Your task to perform on an android device: toggle pop-ups in chrome Image 0: 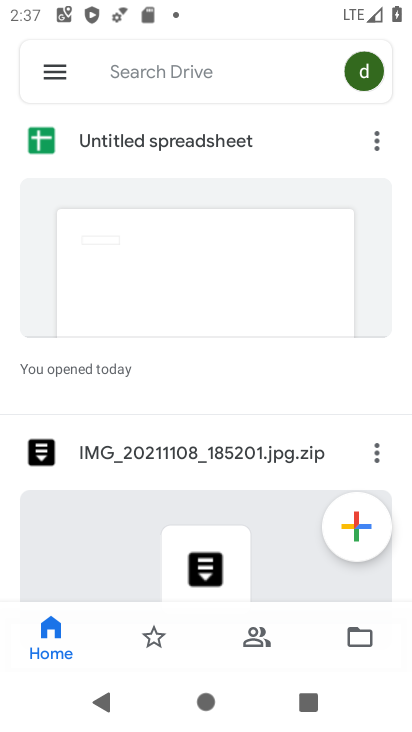
Step 0: press home button
Your task to perform on an android device: toggle pop-ups in chrome Image 1: 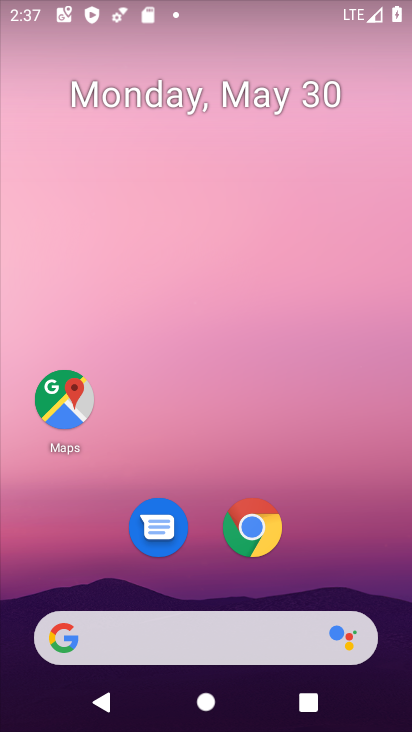
Step 1: drag from (321, 576) to (292, 130)
Your task to perform on an android device: toggle pop-ups in chrome Image 2: 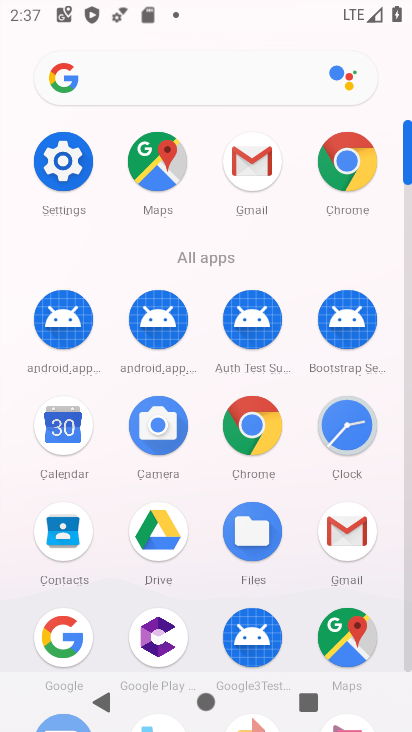
Step 2: click (243, 419)
Your task to perform on an android device: toggle pop-ups in chrome Image 3: 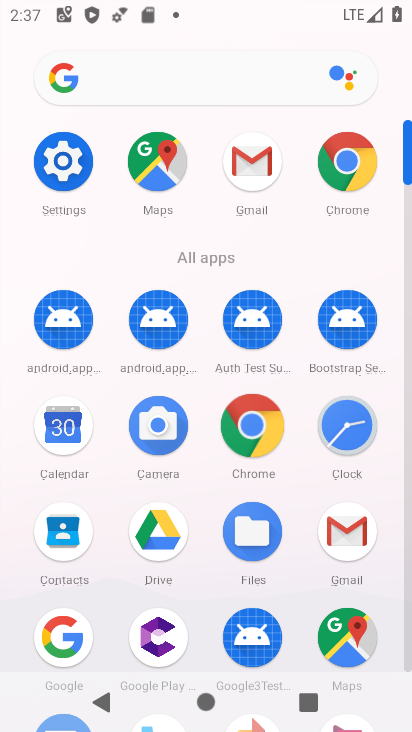
Step 3: click (243, 419)
Your task to perform on an android device: toggle pop-ups in chrome Image 4: 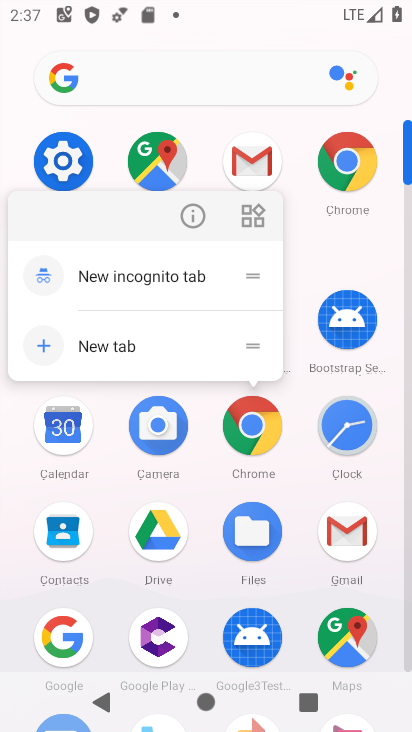
Step 4: click (196, 211)
Your task to perform on an android device: toggle pop-ups in chrome Image 5: 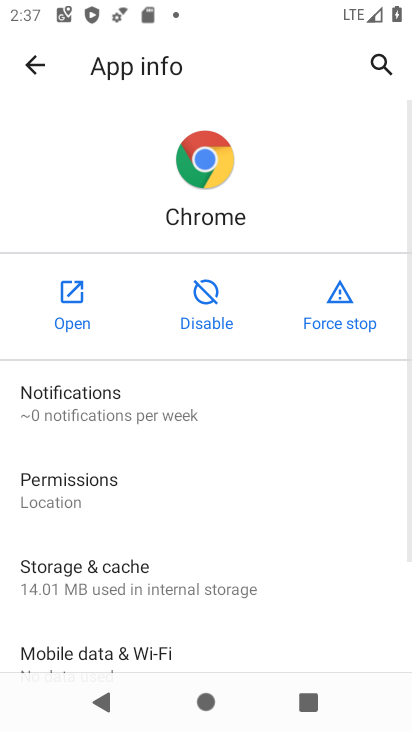
Step 5: drag from (154, 621) to (255, 245)
Your task to perform on an android device: toggle pop-ups in chrome Image 6: 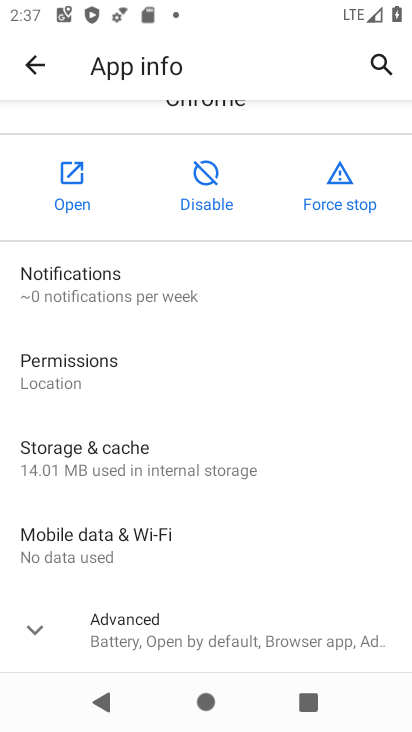
Step 6: click (163, 624)
Your task to perform on an android device: toggle pop-ups in chrome Image 7: 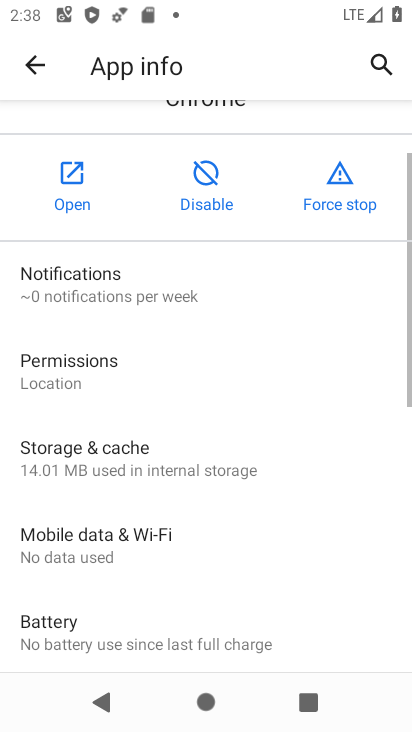
Step 7: drag from (255, 606) to (313, 224)
Your task to perform on an android device: toggle pop-ups in chrome Image 8: 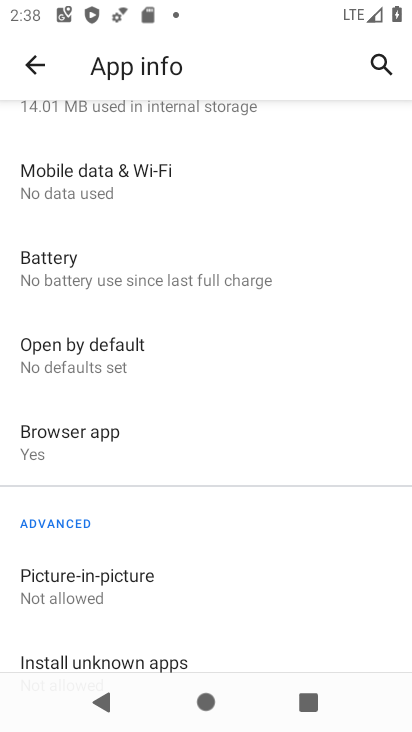
Step 8: click (92, 580)
Your task to perform on an android device: toggle pop-ups in chrome Image 9: 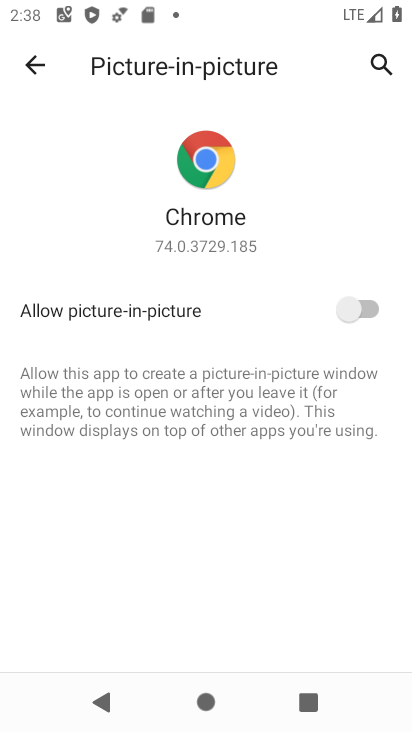
Step 9: click (371, 317)
Your task to perform on an android device: toggle pop-ups in chrome Image 10: 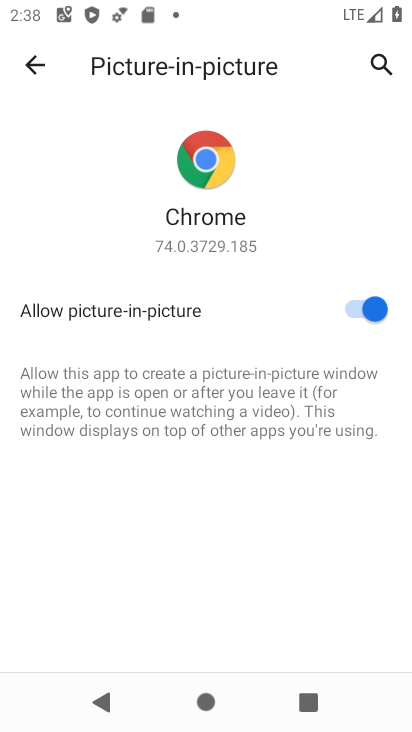
Step 10: task complete